Your task to perform on an android device: Go to location settings Image 0: 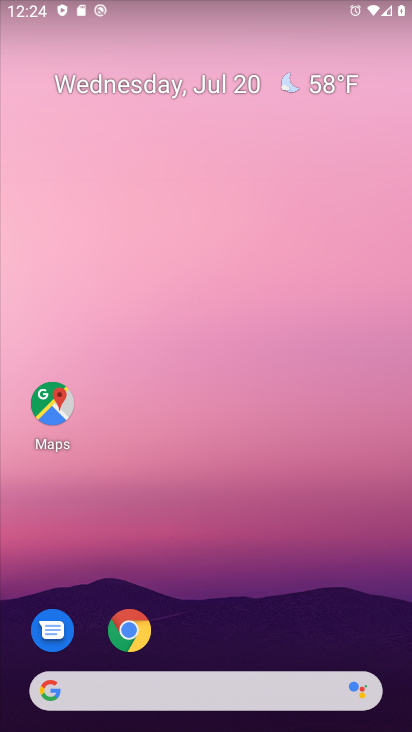
Step 0: press home button
Your task to perform on an android device: Go to location settings Image 1: 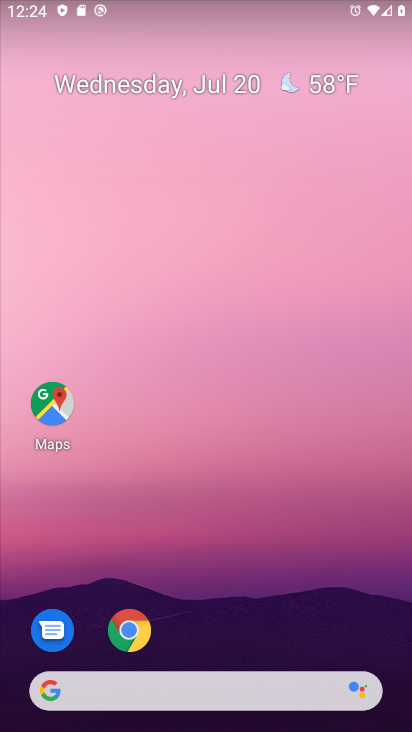
Step 1: drag from (220, 685) to (244, 148)
Your task to perform on an android device: Go to location settings Image 2: 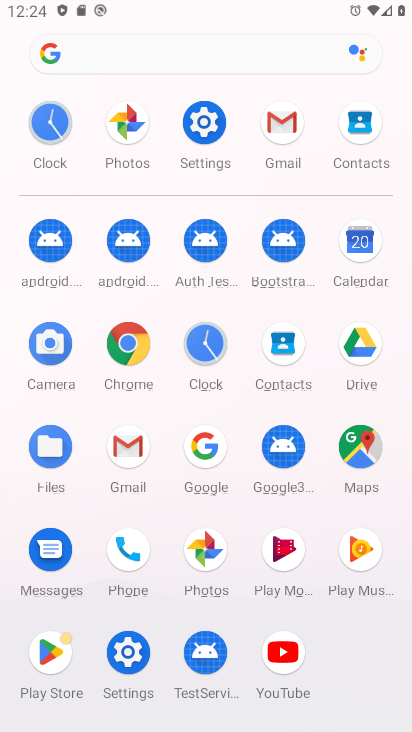
Step 2: click (205, 123)
Your task to perform on an android device: Go to location settings Image 3: 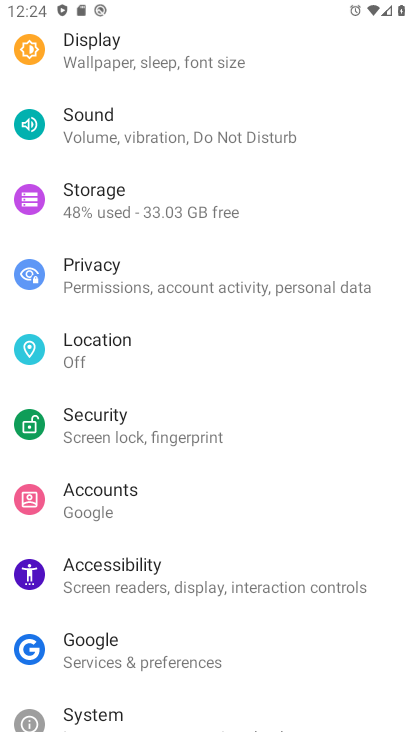
Step 3: click (98, 345)
Your task to perform on an android device: Go to location settings Image 4: 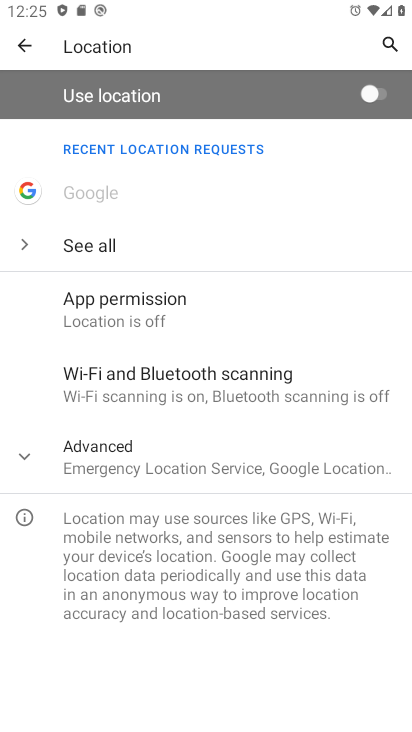
Step 4: task complete